Your task to perform on an android device: How do I get to the nearest Chipotle? Image 0: 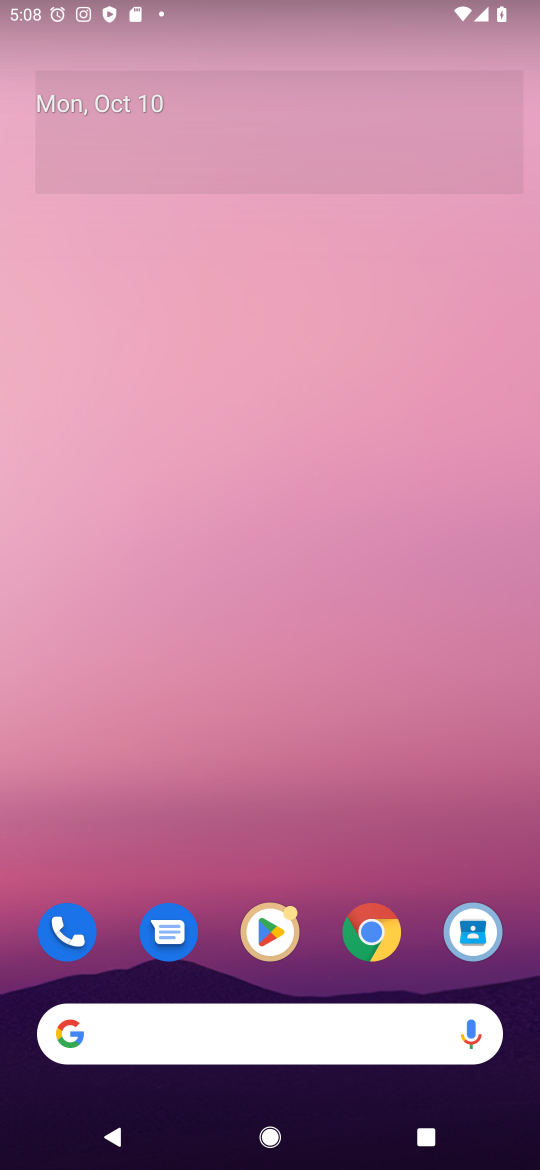
Step 0: press home button
Your task to perform on an android device: How do I get to the nearest Chipotle? Image 1: 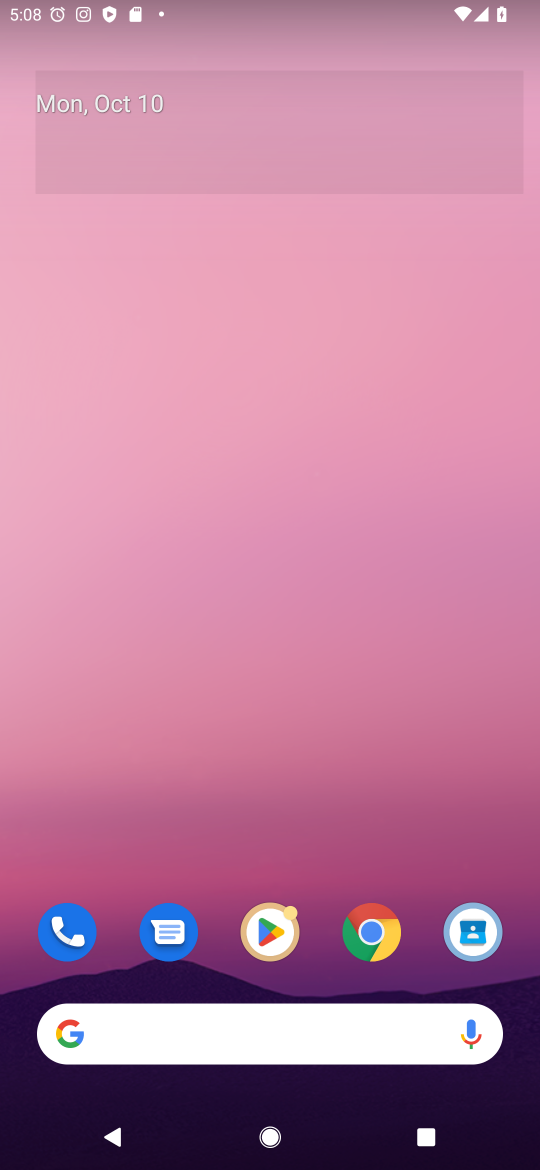
Step 1: click (296, 1042)
Your task to perform on an android device: How do I get to the nearest Chipotle? Image 2: 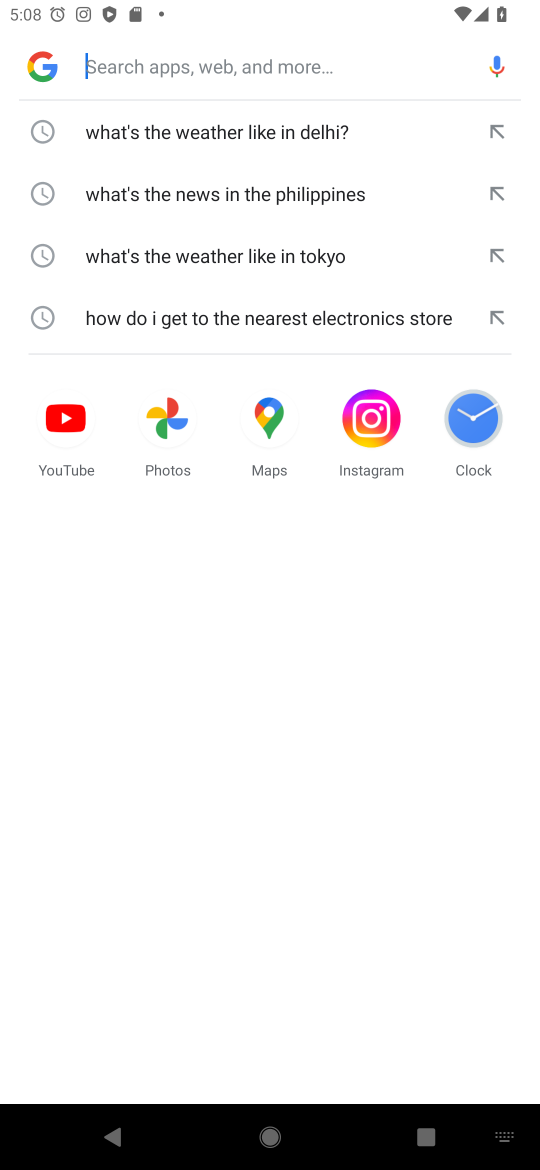
Step 2: type "How do I get to the nearest Chipotle"
Your task to perform on an android device: How do I get to the nearest Chipotle? Image 3: 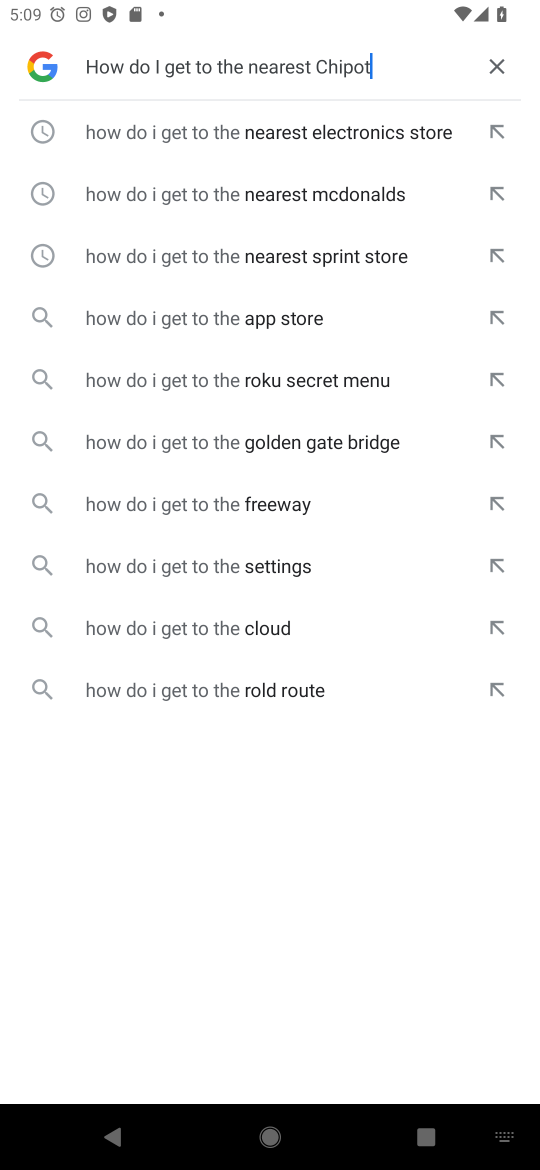
Step 3: press enter
Your task to perform on an android device: How do I get to the nearest Chipotle? Image 4: 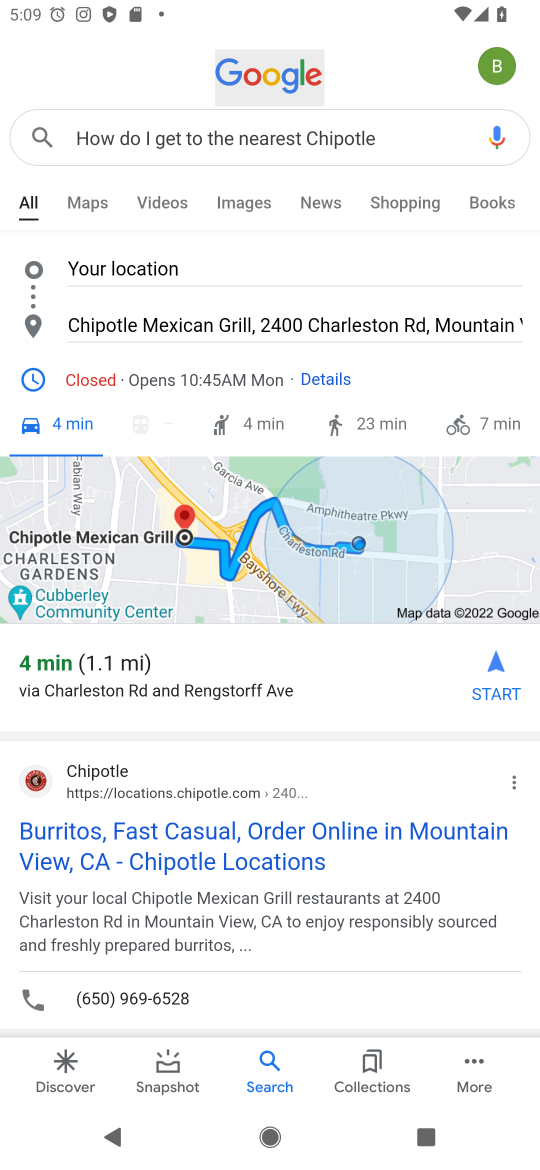
Step 4: task complete